Your task to perform on an android device: add a contact in the contacts app Image 0: 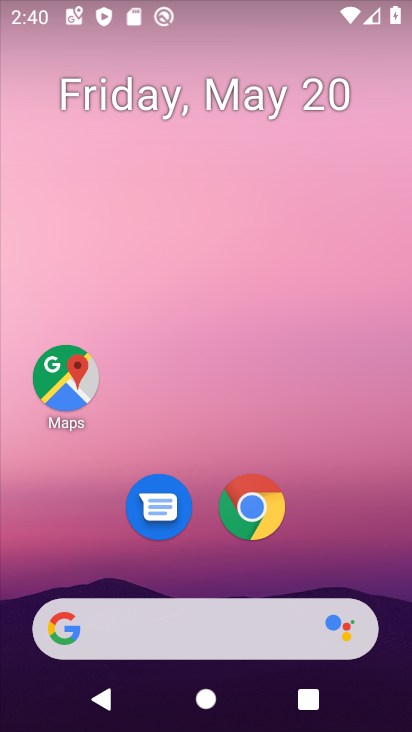
Step 0: drag from (198, 721) to (235, 16)
Your task to perform on an android device: add a contact in the contacts app Image 1: 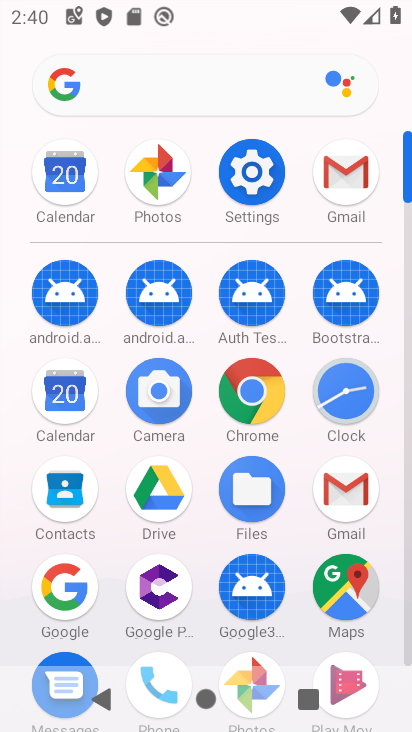
Step 1: click (63, 492)
Your task to perform on an android device: add a contact in the contacts app Image 2: 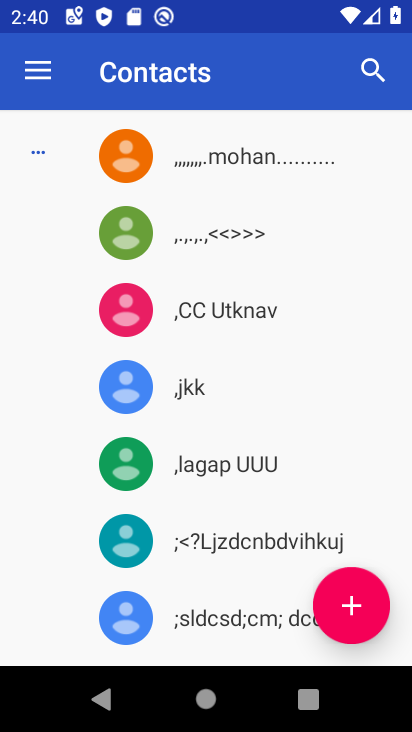
Step 2: click (353, 604)
Your task to perform on an android device: add a contact in the contacts app Image 3: 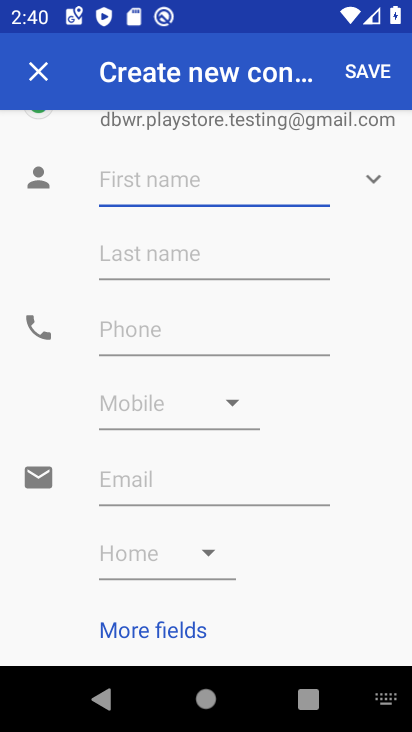
Step 3: type "beast con"
Your task to perform on an android device: add a contact in the contacts app Image 4: 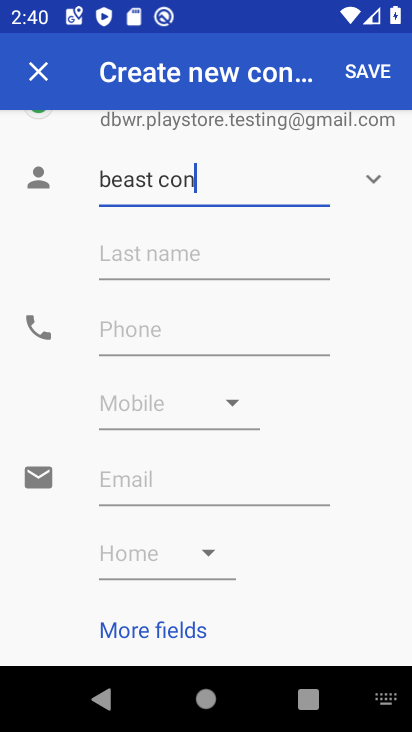
Step 4: click (134, 326)
Your task to perform on an android device: add a contact in the contacts app Image 5: 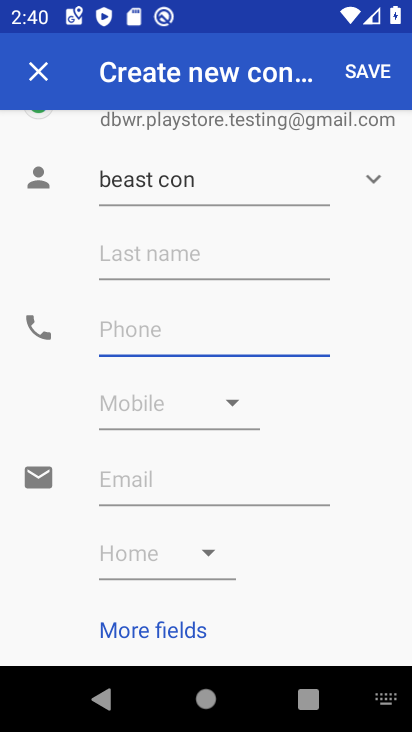
Step 5: type "989898"
Your task to perform on an android device: add a contact in the contacts app Image 6: 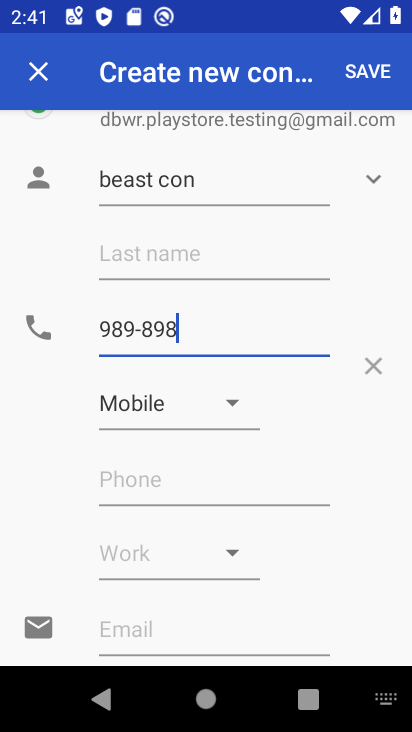
Step 6: click (373, 73)
Your task to perform on an android device: add a contact in the contacts app Image 7: 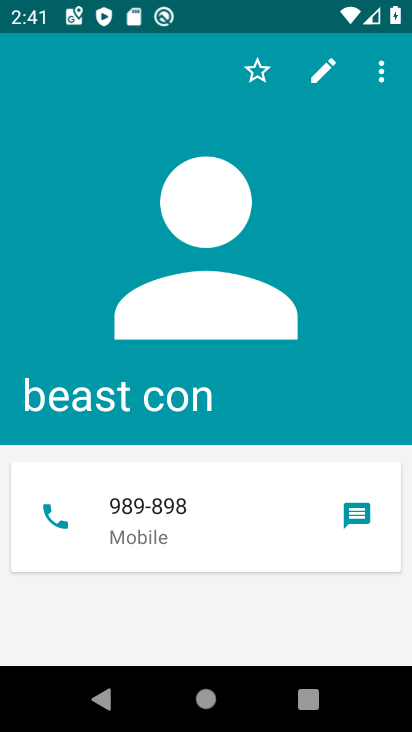
Step 7: task complete